Your task to perform on an android device: open chrome and create a bookmark for the current page Image 0: 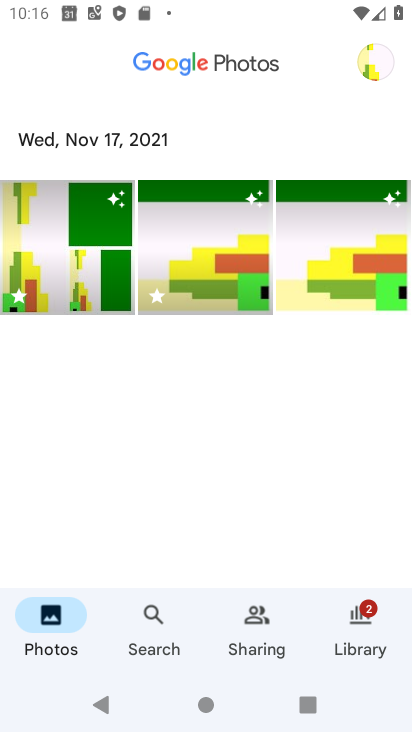
Step 0: press home button
Your task to perform on an android device: open chrome and create a bookmark for the current page Image 1: 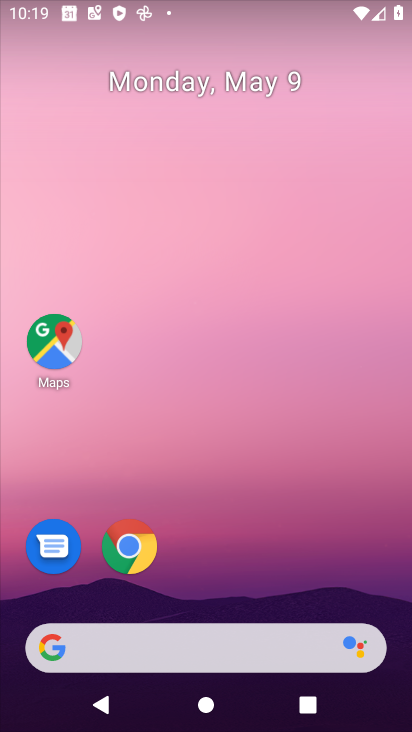
Step 1: click (127, 545)
Your task to perform on an android device: open chrome and create a bookmark for the current page Image 2: 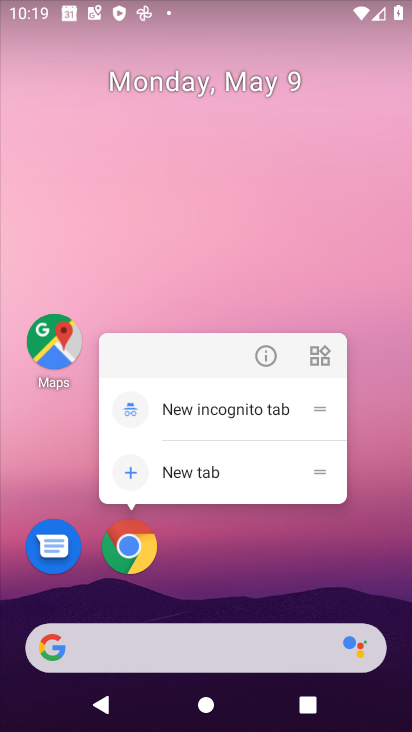
Step 2: click (126, 545)
Your task to perform on an android device: open chrome and create a bookmark for the current page Image 3: 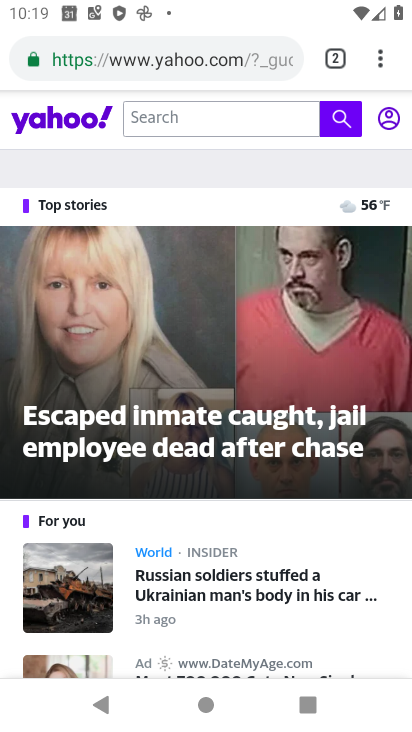
Step 3: click (386, 56)
Your task to perform on an android device: open chrome and create a bookmark for the current page Image 4: 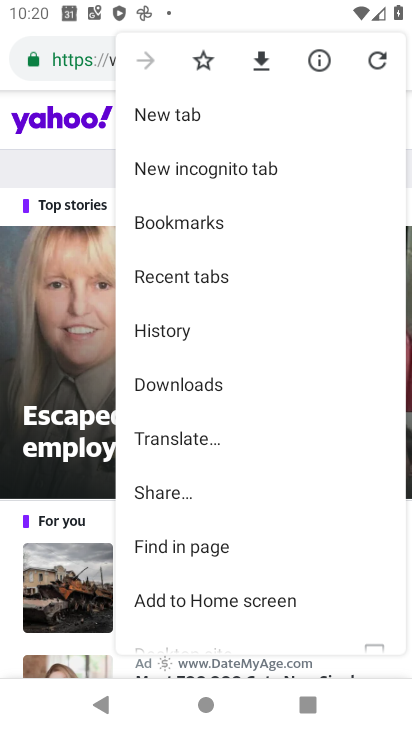
Step 4: drag from (191, 575) to (168, 116)
Your task to perform on an android device: open chrome and create a bookmark for the current page Image 5: 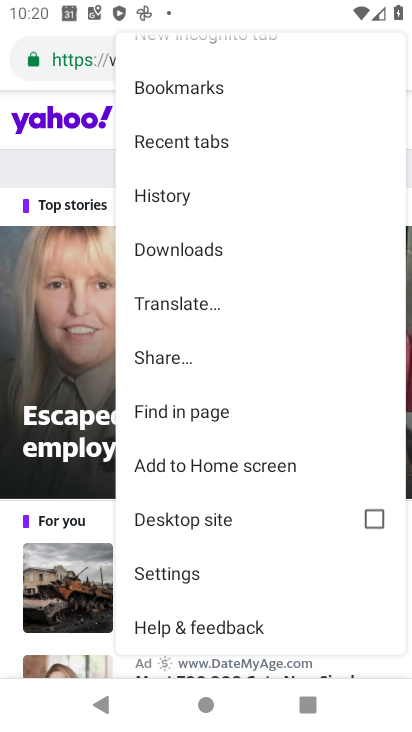
Step 5: click (43, 156)
Your task to perform on an android device: open chrome and create a bookmark for the current page Image 6: 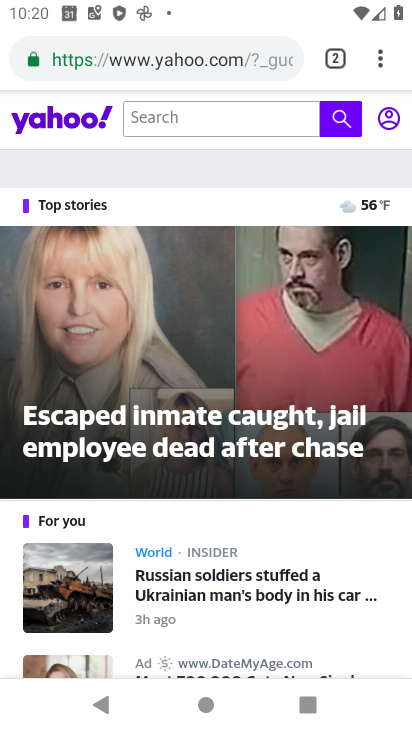
Step 6: click (381, 56)
Your task to perform on an android device: open chrome and create a bookmark for the current page Image 7: 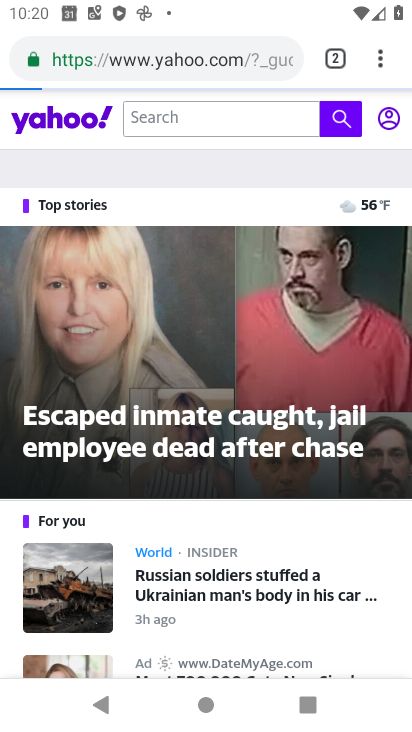
Step 7: click (194, 59)
Your task to perform on an android device: open chrome and create a bookmark for the current page Image 8: 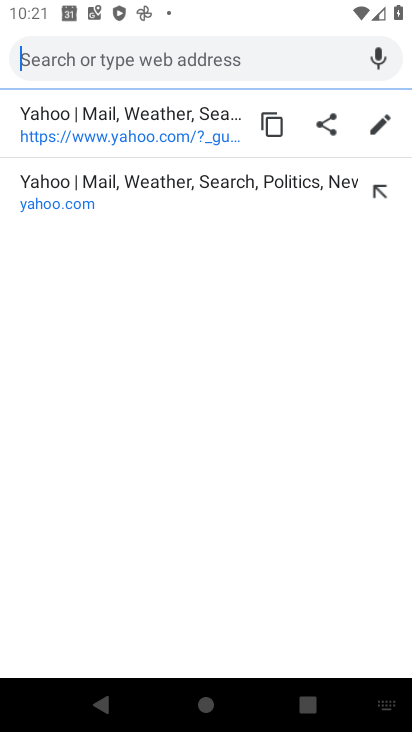
Step 8: task complete